Your task to perform on an android device: turn pop-ups on in chrome Image 0: 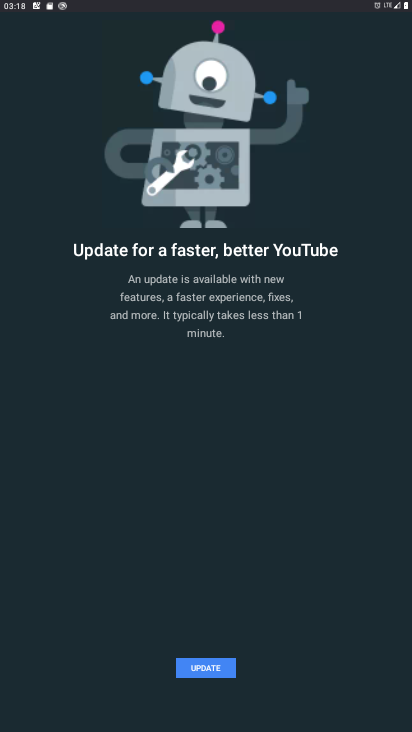
Step 0: press home button
Your task to perform on an android device: turn pop-ups on in chrome Image 1: 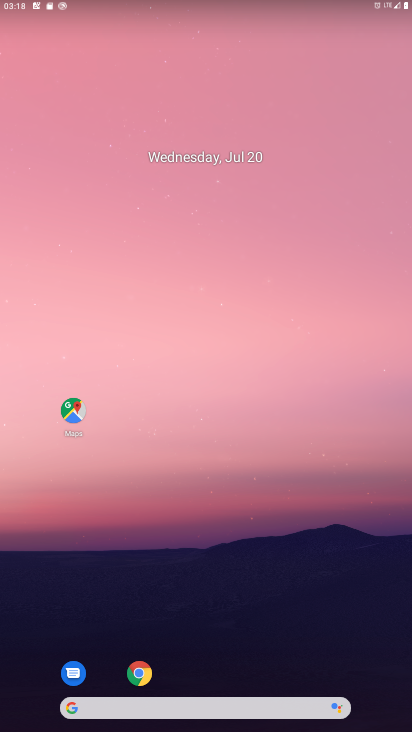
Step 1: click (136, 665)
Your task to perform on an android device: turn pop-ups on in chrome Image 2: 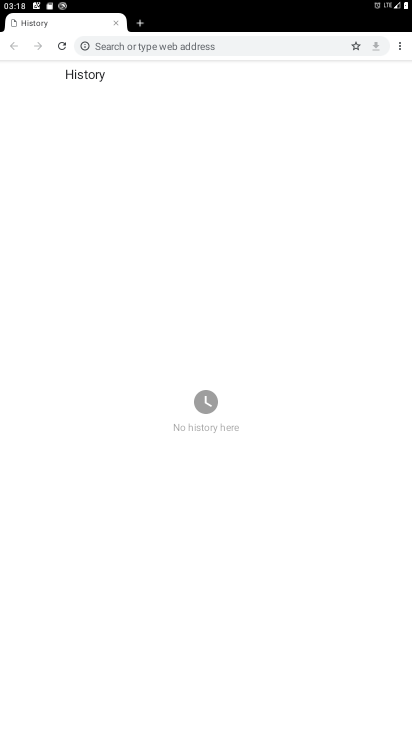
Step 2: click (397, 44)
Your task to perform on an android device: turn pop-ups on in chrome Image 3: 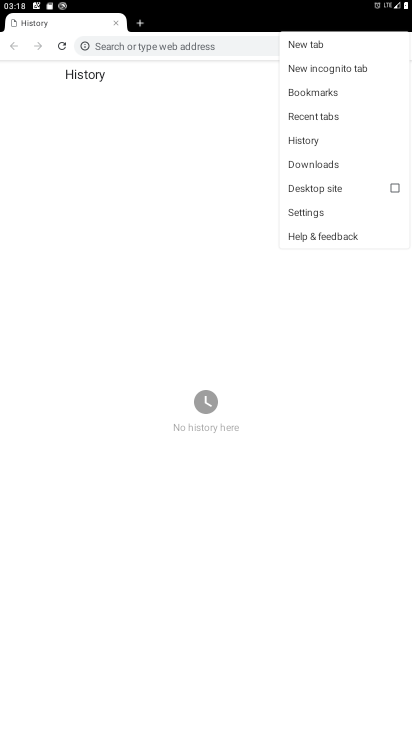
Step 3: click (304, 213)
Your task to perform on an android device: turn pop-ups on in chrome Image 4: 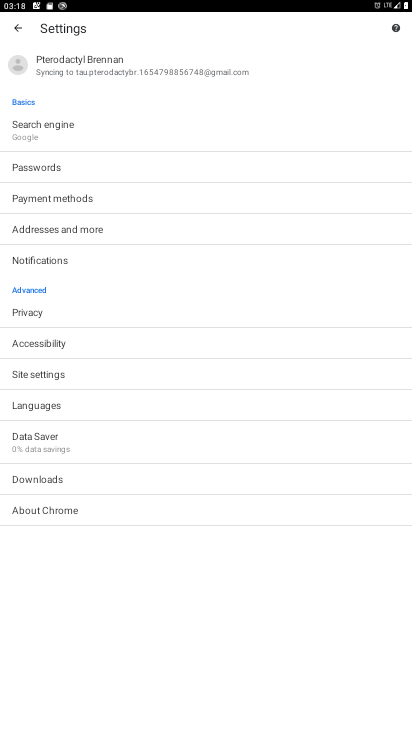
Step 4: click (50, 374)
Your task to perform on an android device: turn pop-ups on in chrome Image 5: 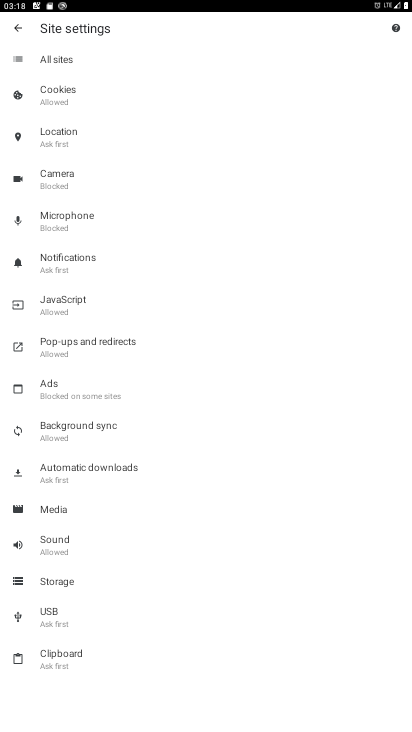
Step 5: click (93, 347)
Your task to perform on an android device: turn pop-ups on in chrome Image 6: 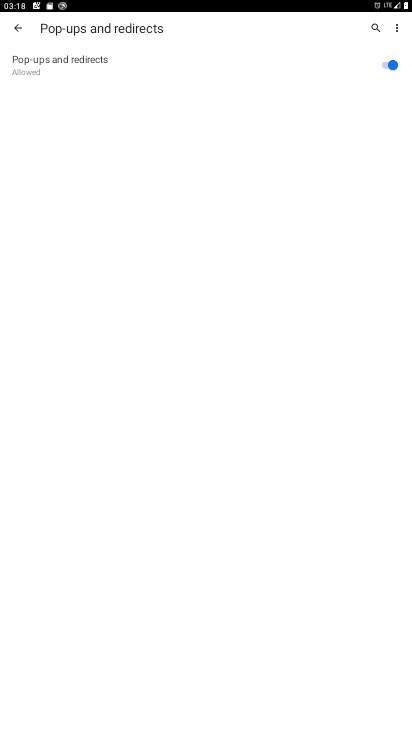
Step 6: task complete